Your task to perform on an android device: Go to location settings Image 0: 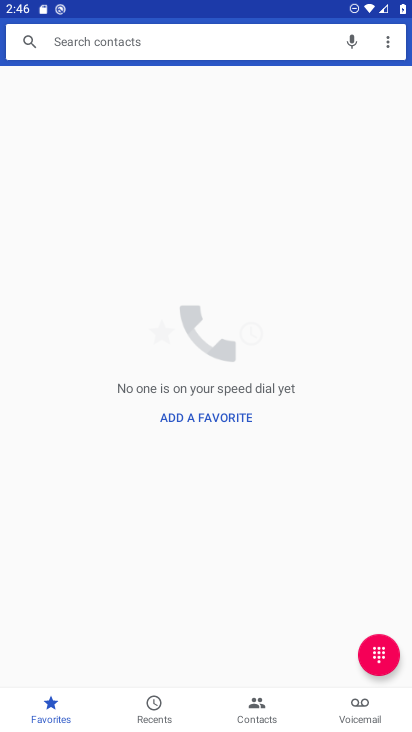
Step 0: press home button
Your task to perform on an android device: Go to location settings Image 1: 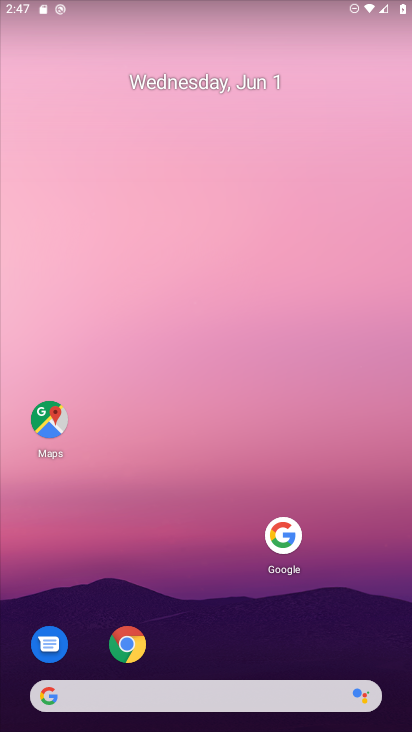
Step 1: drag from (211, 702) to (362, 158)
Your task to perform on an android device: Go to location settings Image 2: 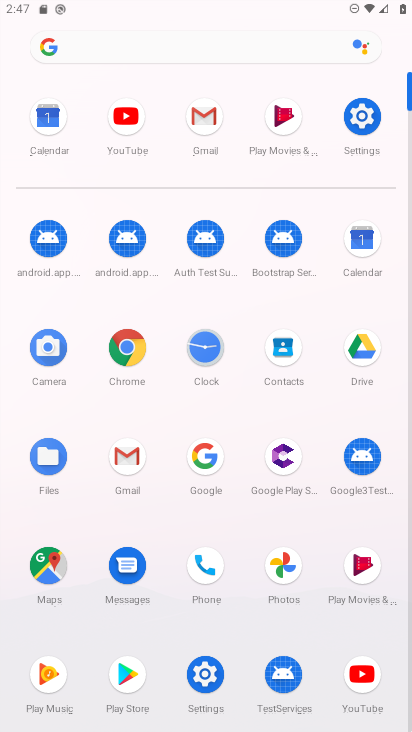
Step 2: click (363, 117)
Your task to perform on an android device: Go to location settings Image 3: 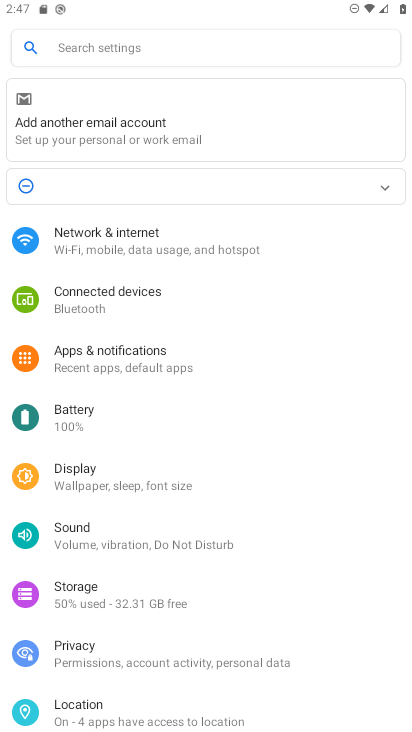
Step 3: click (79, 709)
Your task to perform on an android device: Go to location settings Image 4: 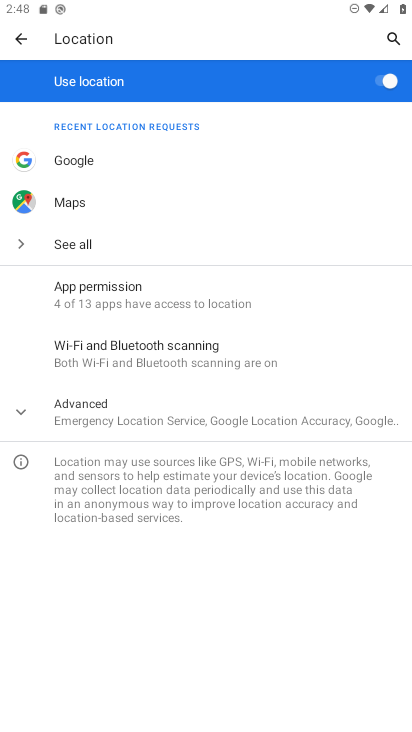
Step 4: task complete